Your task to perform on an android device: open app "Pinterest" Image 0: 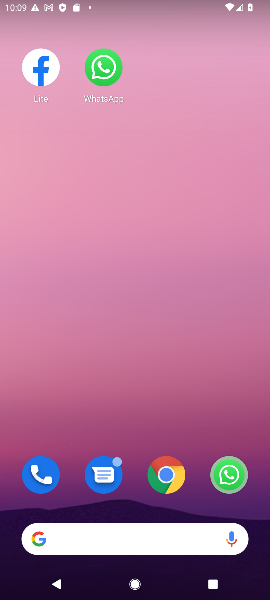
Step 0: drag from (168, 543) to (127, 27)
Your task to perform on an android device: open app "Pinterest" Image 1: 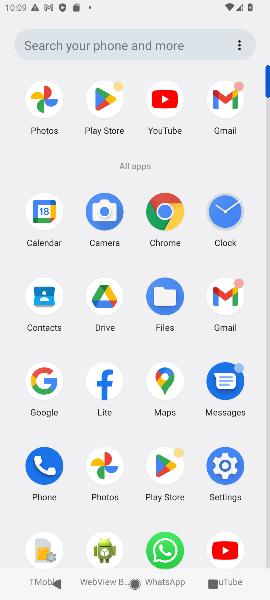
Step 1: click (161, 468)
Your task to perform on an android device: open app "Pinterest" Image 2: 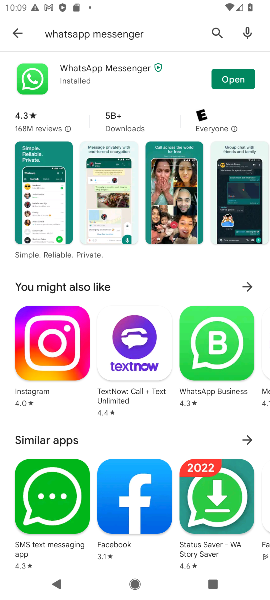
Step 2: click (16, 40)
Your task to perform on an android device: open app "Pinterest" Image 3: 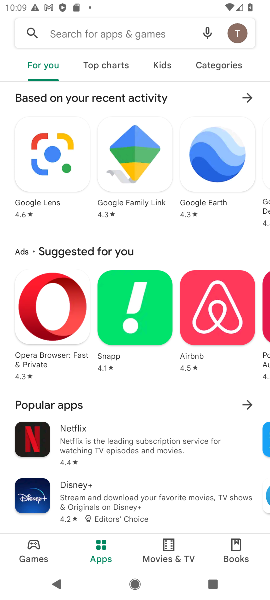
Step 3: click (55, 29)
Your task to perform on an android device: open app "Pinterest" Image 4: 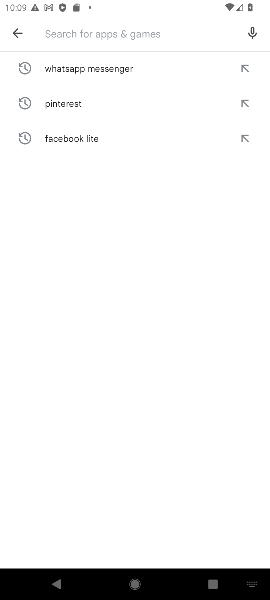
Step 4: type "Pinterest"
Your task to perform on an android device: open app "Pinterest" Image 5: 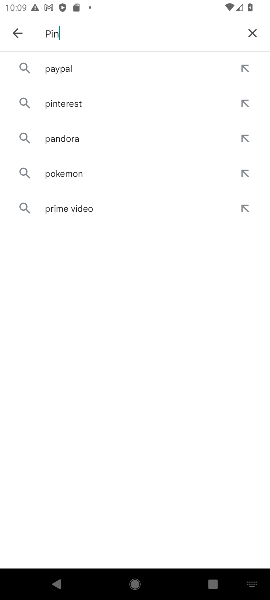
Step 5: type ""
Your task to perform on an android device: open app "Pinterest" Image 6: 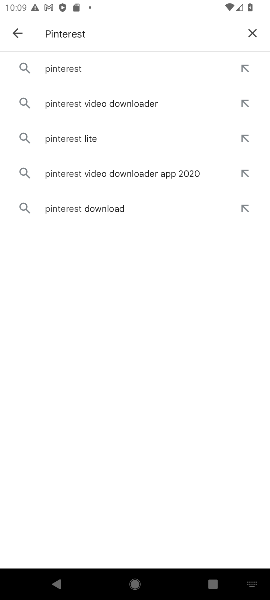
Step 6: click (82, 62)
Your task to perform on an android device: open app "Pinterest" Image 7: 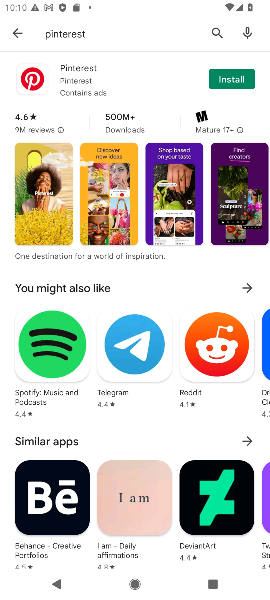
Step 7: task complete